Your task to perform on an android device: Open calendar and show me the fourth week of next month Image 0: 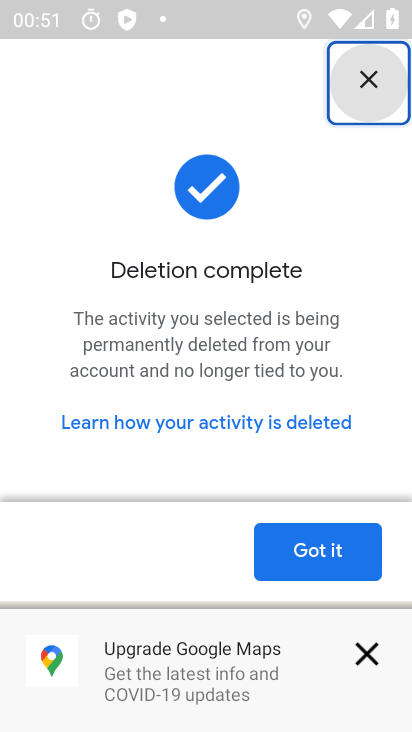
Step 0: press home button
Your task to perform on an android device: Open calendar and show me the fourth week of next month Image 1: 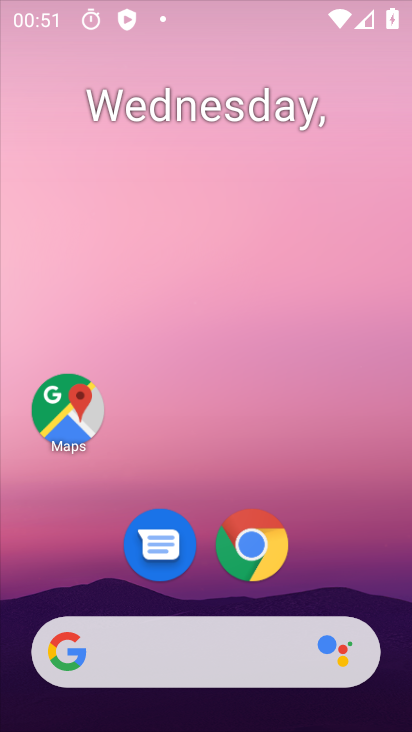
Step 1: drag from (377, 541) to (335, 21)
Your task to perform on an android device: Open calendar and show me the fourth week of next month Image 2: 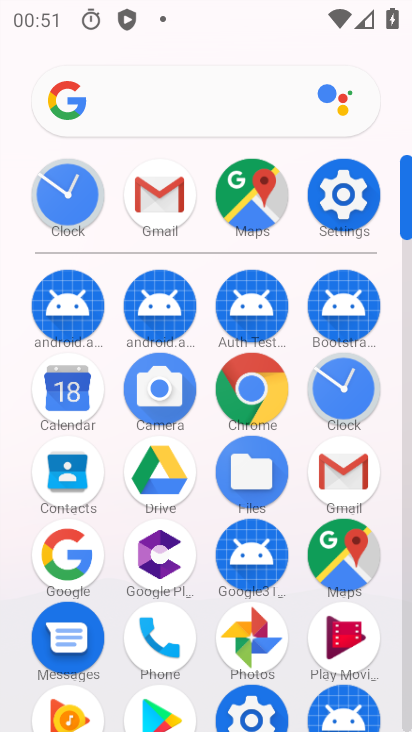
Step 2: click (71, 392)
Your task to perform on an android device: Open calendar and show me the fourth week of next month Image 3: 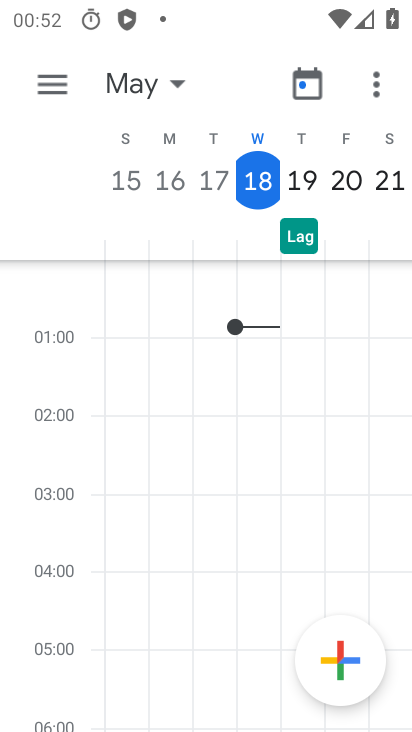
Step 3: click (124, 80)
Your task to perform on an android device: Open calendar and show me the fourth week of next month Image 4: 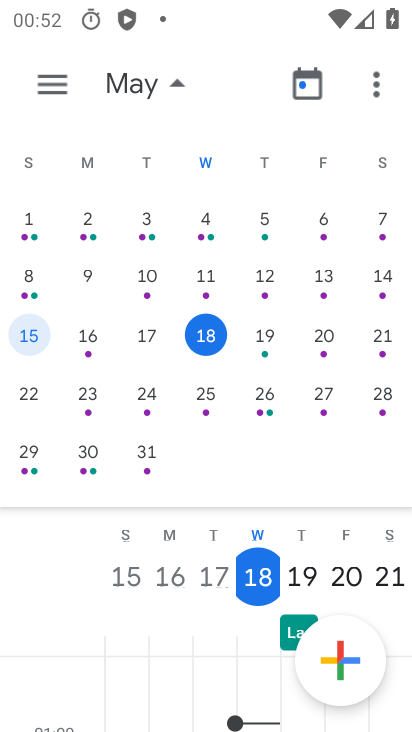
Step 4: drag from (407, 345) to (41, 364)
Your task to perform on an android device: Open calendar and show me the fourth week of next month Image 5: 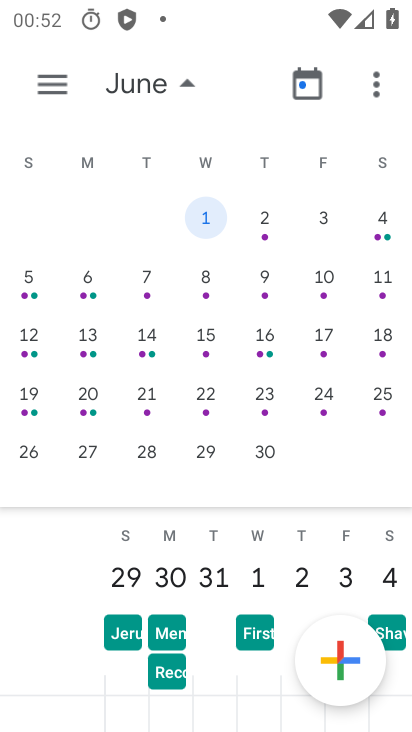
Step 5: click (45, 448)
Your task to perform on an android device: Open calendar and show me the fourth week of next month Image 6: 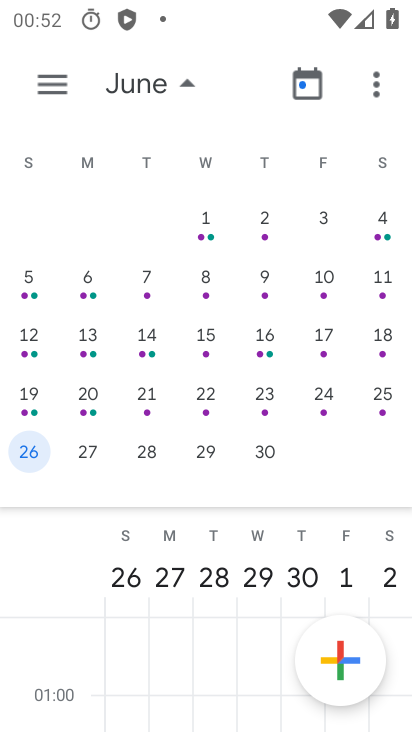
Step 6: task complete